Your task to perform on an android device: Open Maps and search for coffee Image 0: 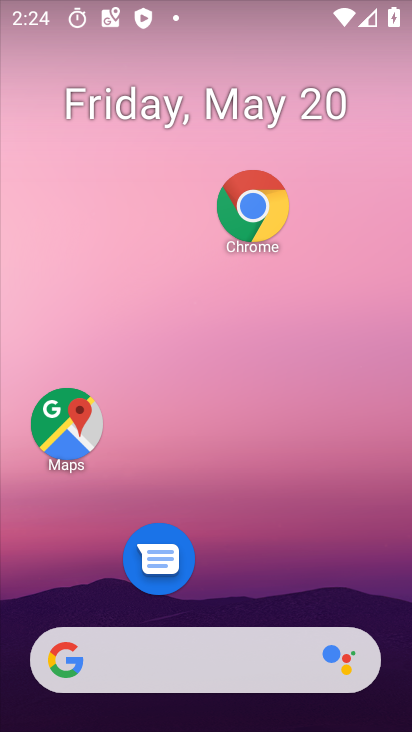
Step 0: drag from (244, 610) to (246, 46)
Your task to perform on an android device: Open Maps and search for coffee Image 1: 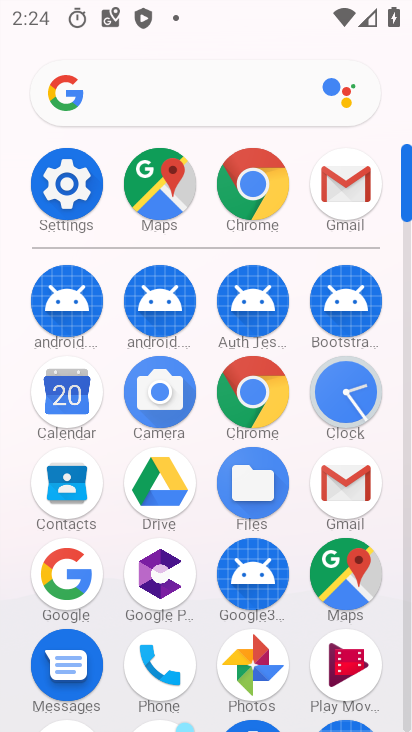
Step 1: click (331, 576)
Your task to perform on an android device: Open Maps and search for coffee Image 2: 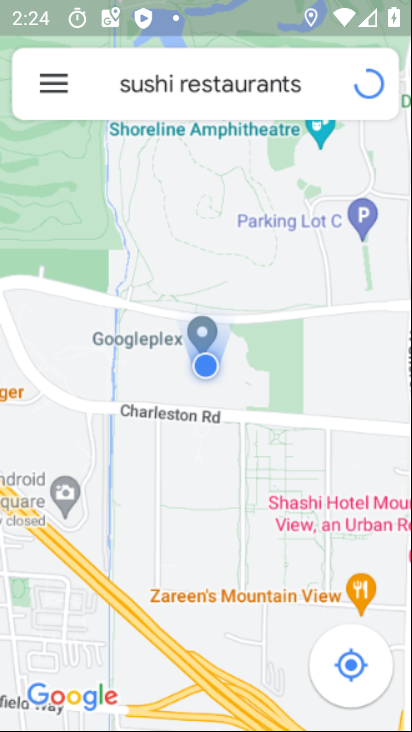
Step 2: click (206, 109)
Your task to perform on an android device: Open Maps and search for coffee Image 3: 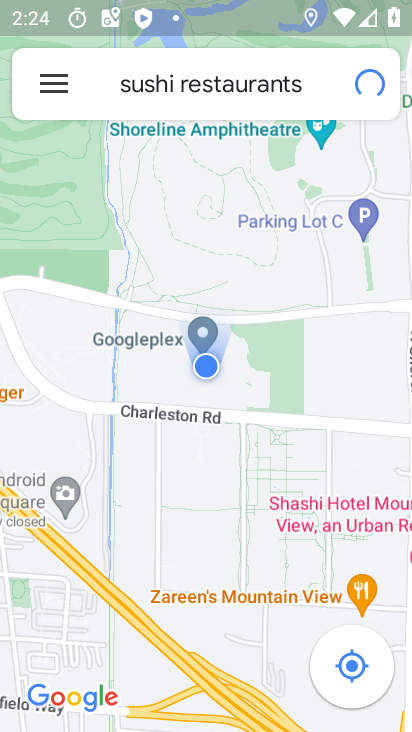
Step 3: click (220, 105)
Your task to perform on an android device: Open Maps and search for coffee Image 4: 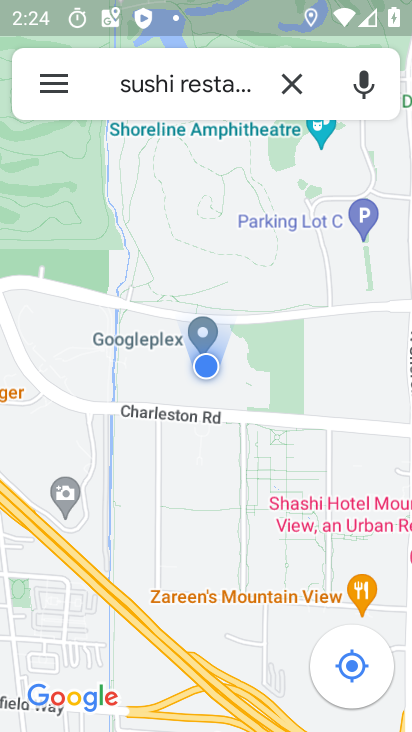
Step 4: click (220, 105)
Your task to perform on an android device: Open Maps and search for coffee Image 5: 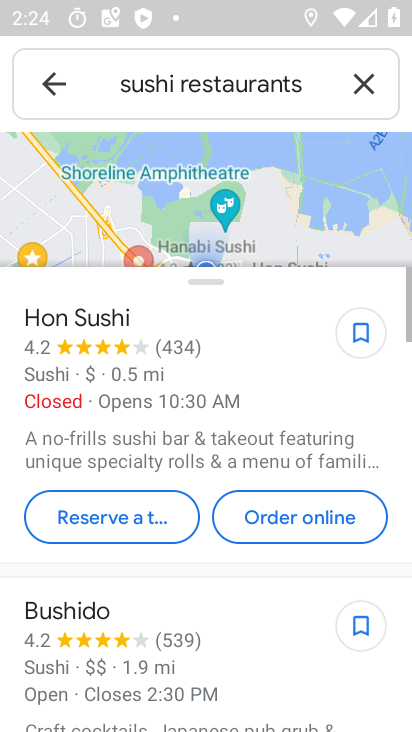
Step 5: click (280, 82)
Your task to perform on an android device: Open Maps and search for coffee Image 6: 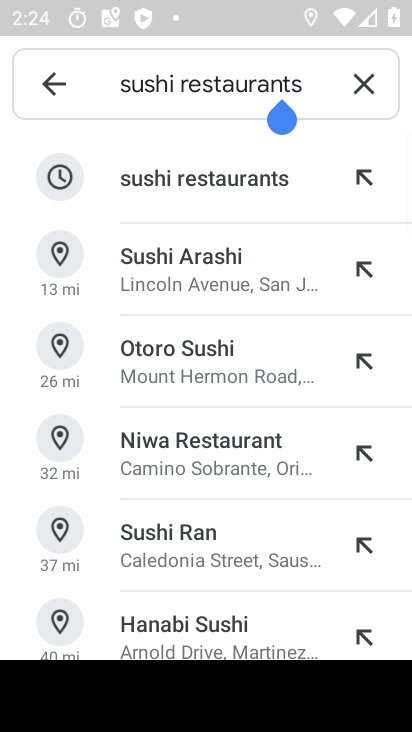
Step 6: click (353, 84)
Your task to perform on an android device: Open Maps and search for coffee Image 7: 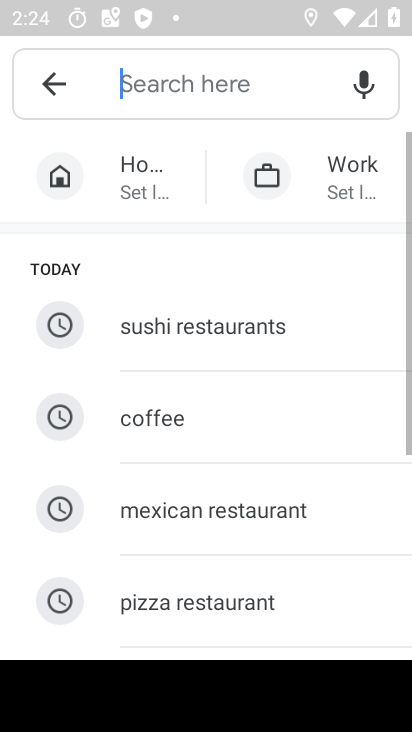
Step 7: click (160, 93)
Your task to perform on an android device: Open Maps and search for coffee Image 8: 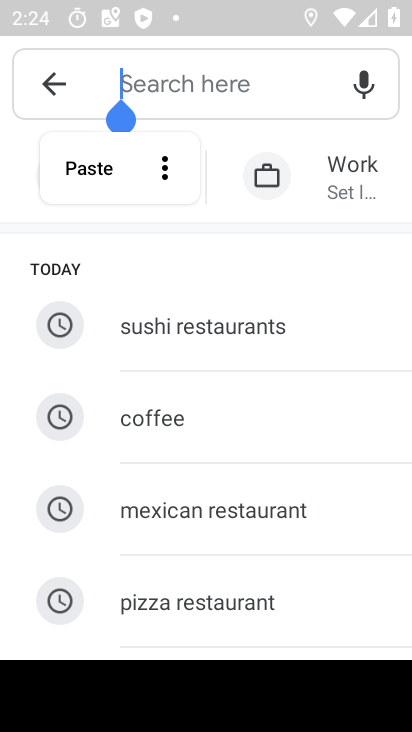
Step 8: click (175, 432)
Your task to perform on an android device: Open Maps and search for coffee Image 9: 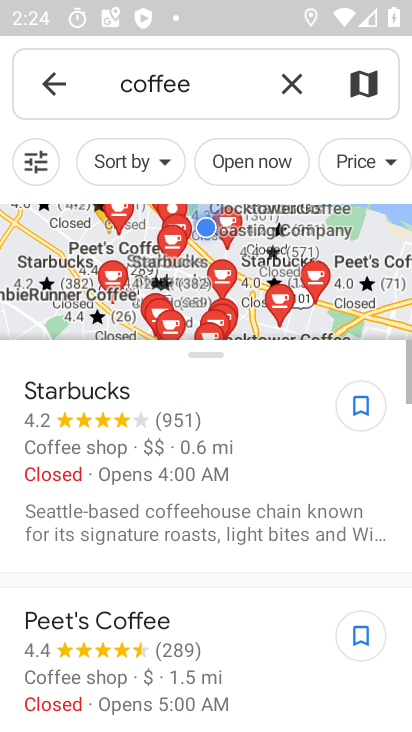
Step 9: task complete